Your task to perform on an android device: Search for Mexican restaurants on Maps Image 0: 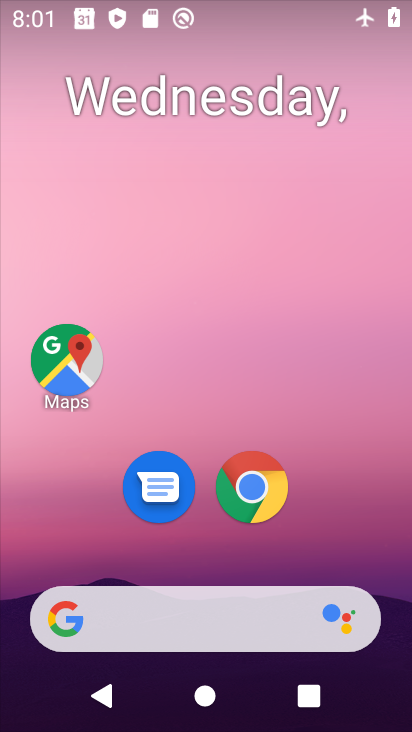
Step 0: click (62, 362)
Your task to perform on an android device: Search for Mexican restaurants on Maps Image 1: 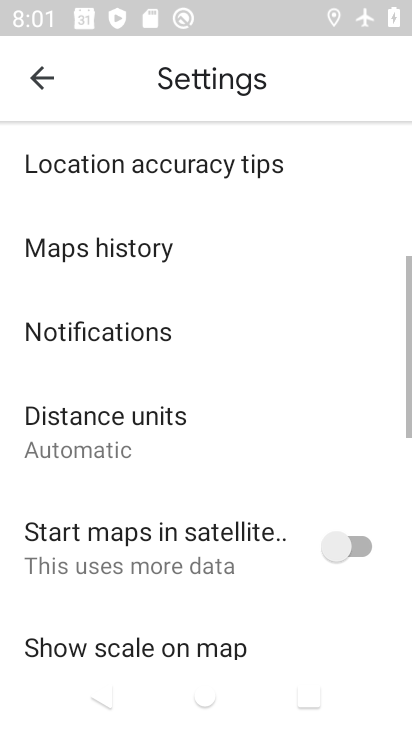
Step 1: click (53, 85)
Your task to perform on an android device: Search for Mexican restaurants on Maps Image 2: 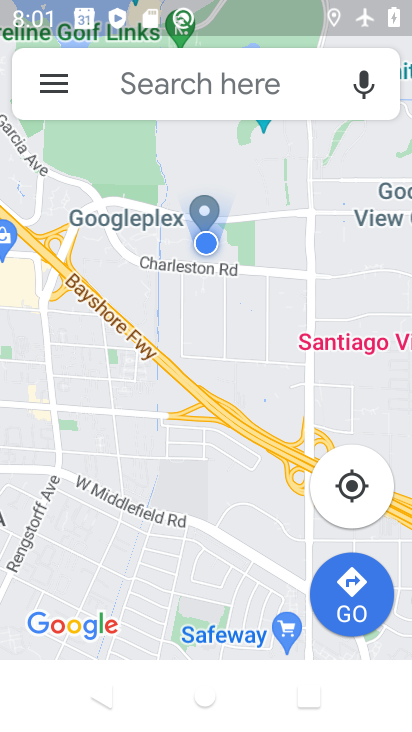
Step 2: click (138, 90)
Your task to perform on an android device: Search for Mexican restaurants on Maps Image 3: 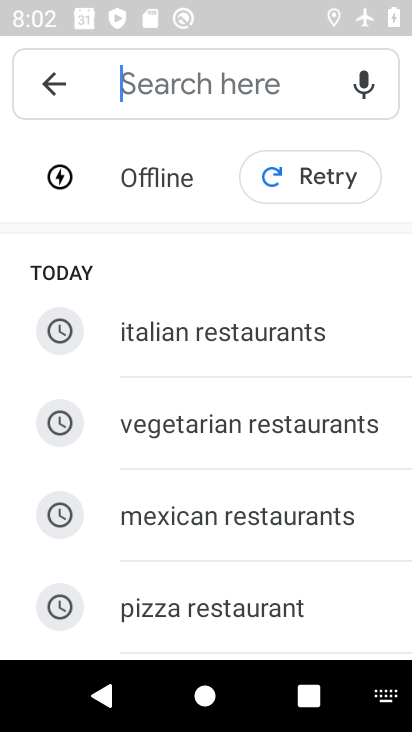
Step 3: type "mexican restaurants"
Your task to perform on an android device: Search for Mexican restaurants on Maps Image 4: 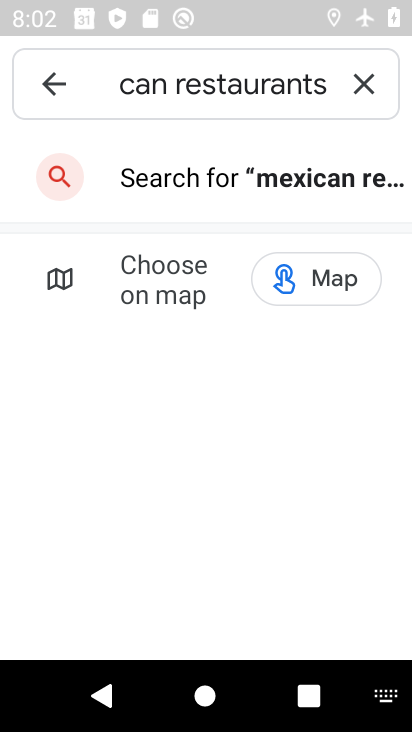
Step 4: click (319, 172)
Your task to perform on an android device: Search for Mexican restaurants on Maps Image 5: 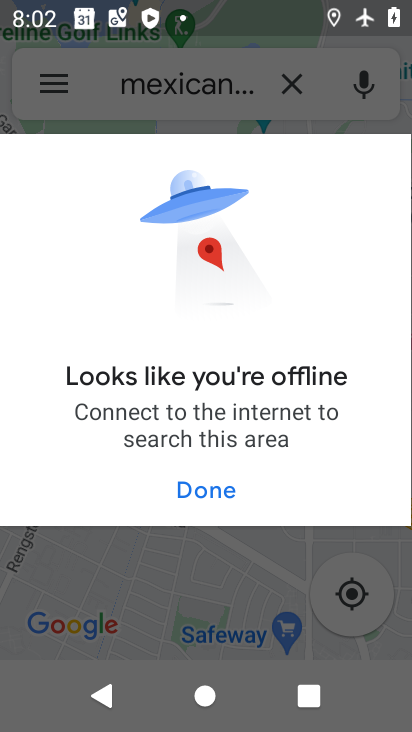
Step 5: task complete